Your task to perform on an android device: Open the calendar app, open the side menu, and click the "Day" option Image 0: 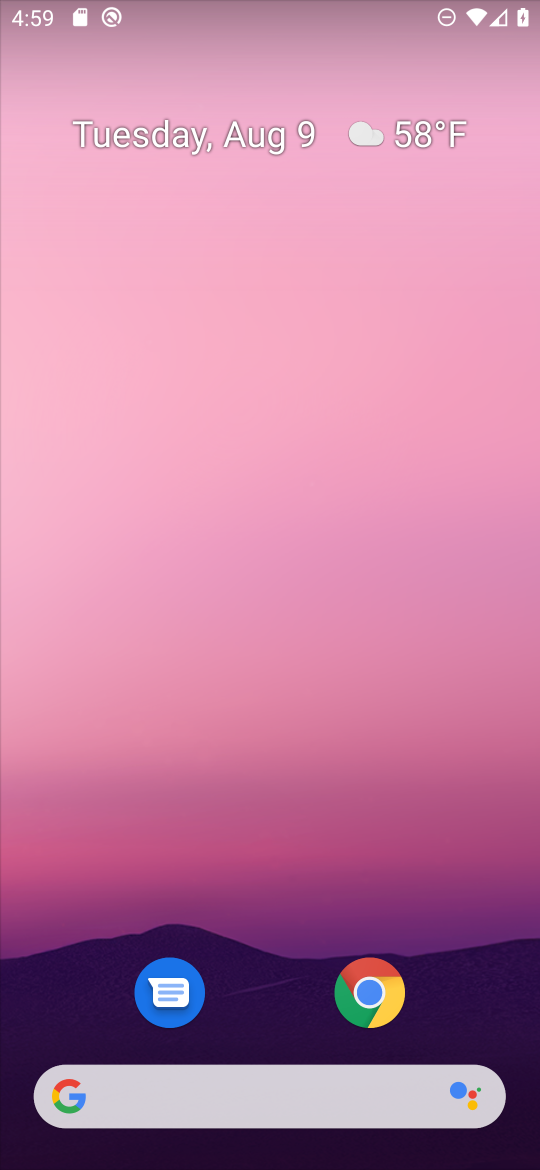
Step 0: drag from (131, 1096) to (390, 8)
Your task to perform on an android device: Open the calendar app, open the side menu, and click the "Day" option Image 1: 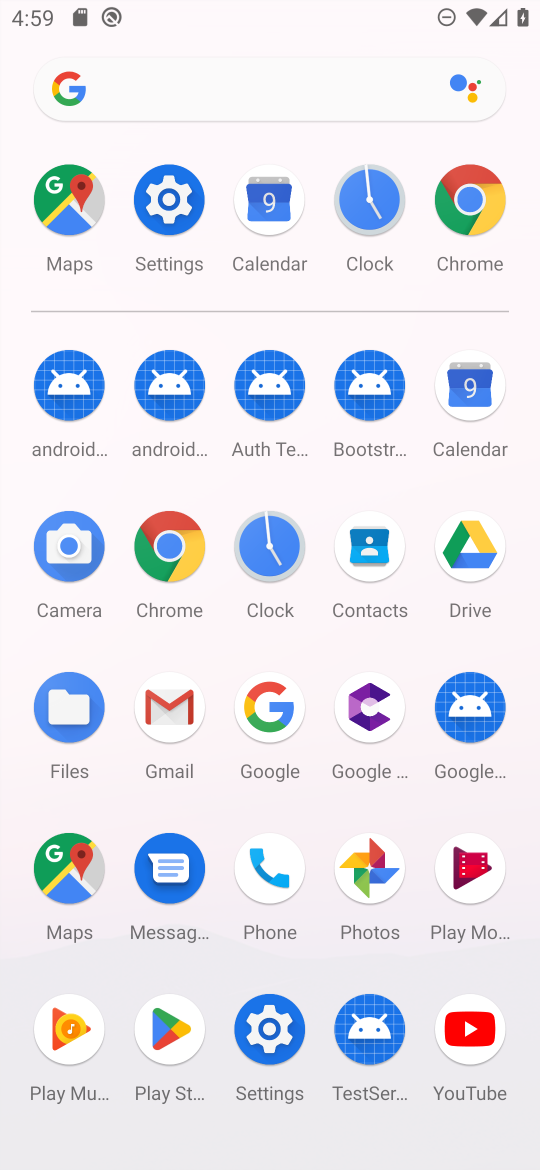
Step 1: click (452, 407)
Your task to perform on an android device: Open the calendar app, open the side menu, and click the "Day" option Image 2: 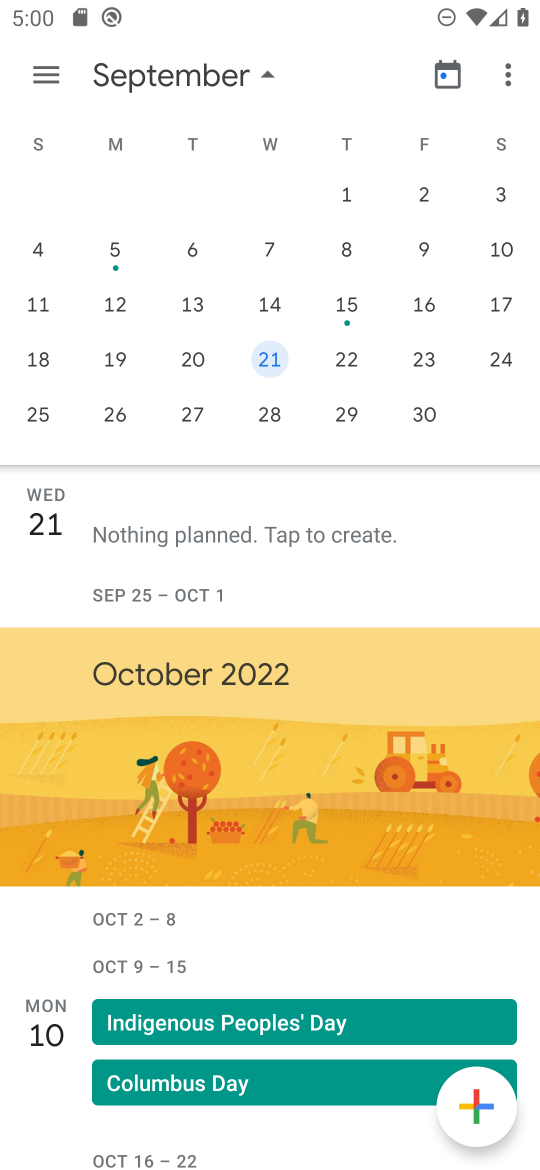
Step 2: click (27, 63)
Your task to perform on an android device: Open the calendar app, open the side menu, and click the "Day" option Image 3: 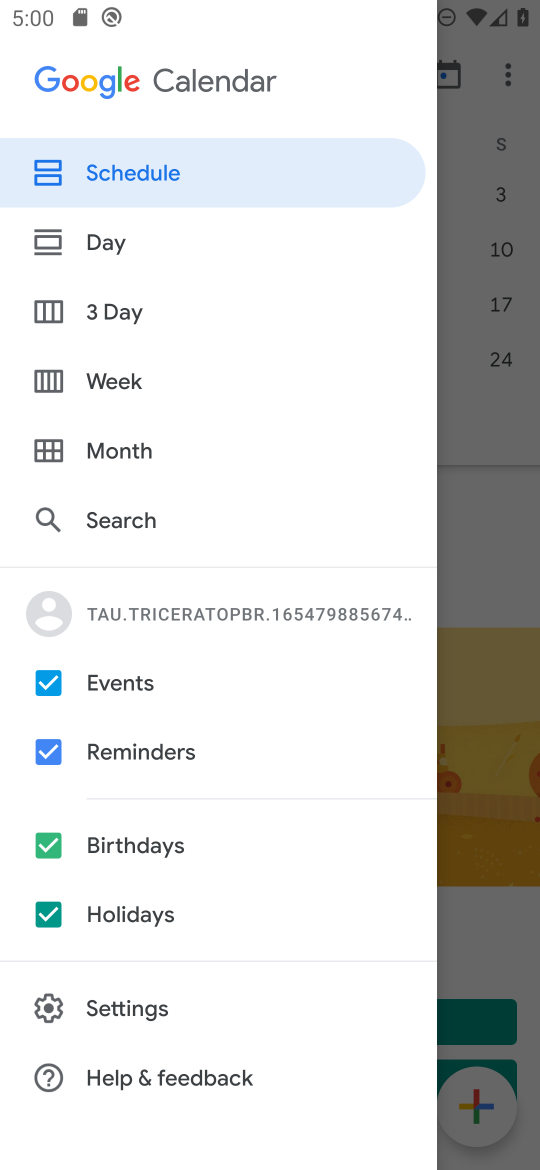
Step 3: click (258, 209)
Your task to perform on an android device: Open the calendar app, open the side menu, and click the "Day" option Image 4: 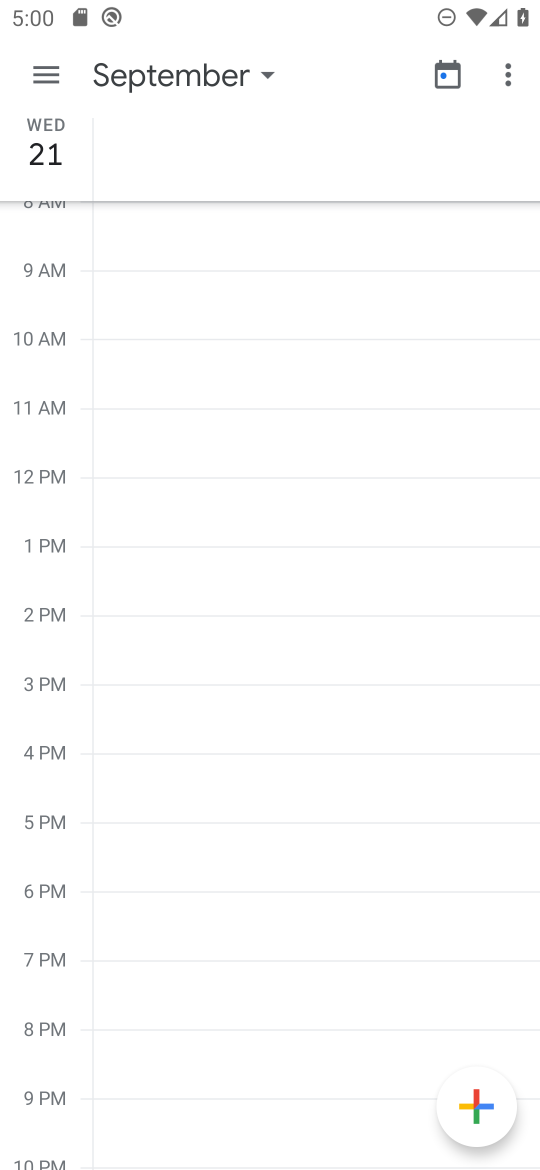
Step 4: press home button
Your task to perform on an android device: Open the calendar app, open the side menu, and click the "Day" option Image 5: 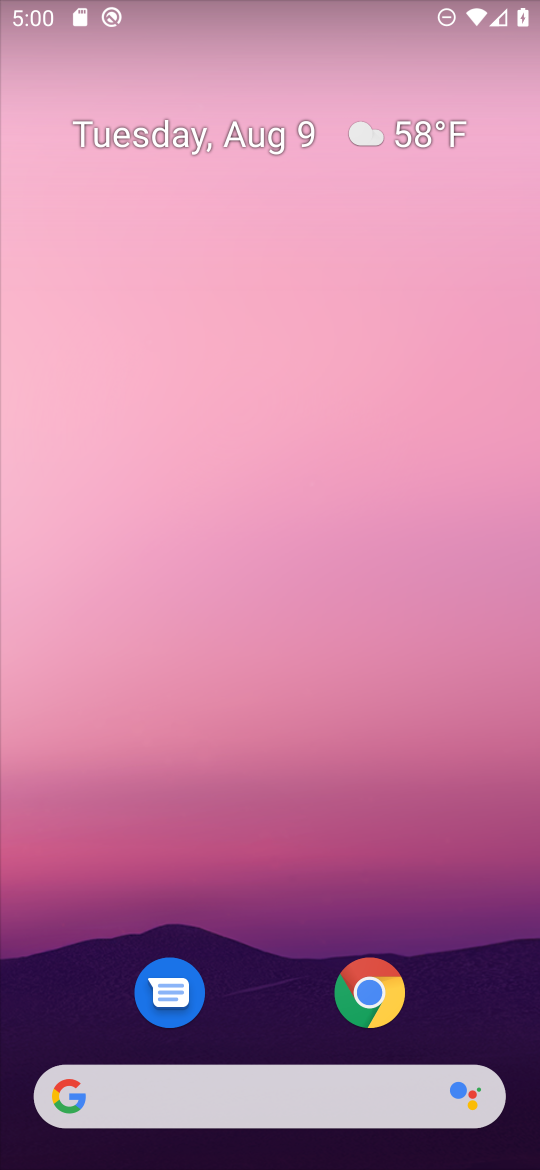
Step 5: drag from (417, 1087) to (510, 266)
Your task to perform on an android device: Open the calendar app, open the side menu, and click the "Day" option Image 6: 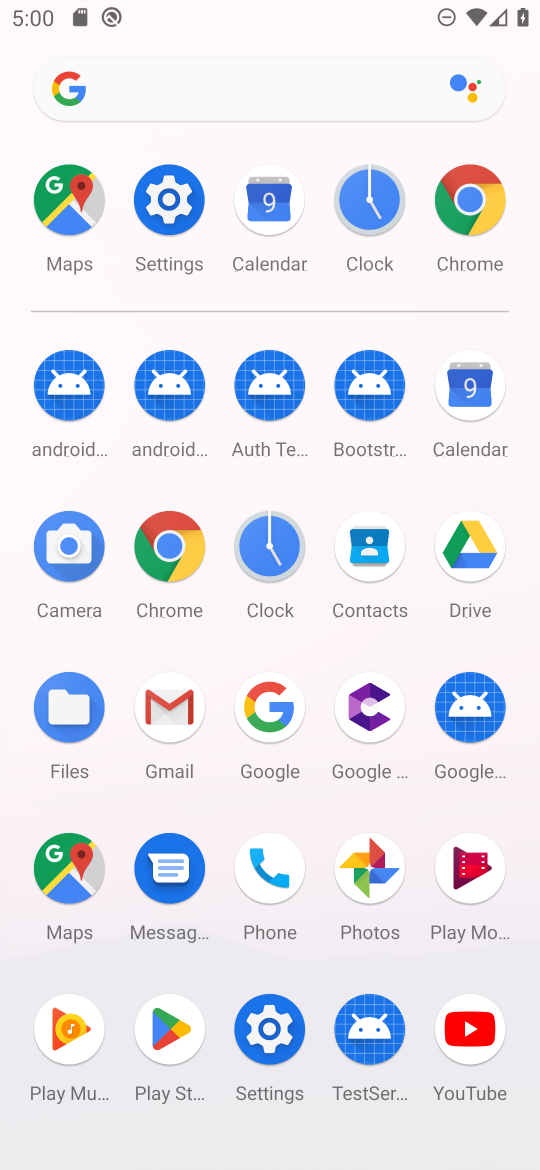
Step 6: click (466, 399)
Your task to perform on an android device: Open the calendar app, open the side menu, and click the "Day" option Image 7: 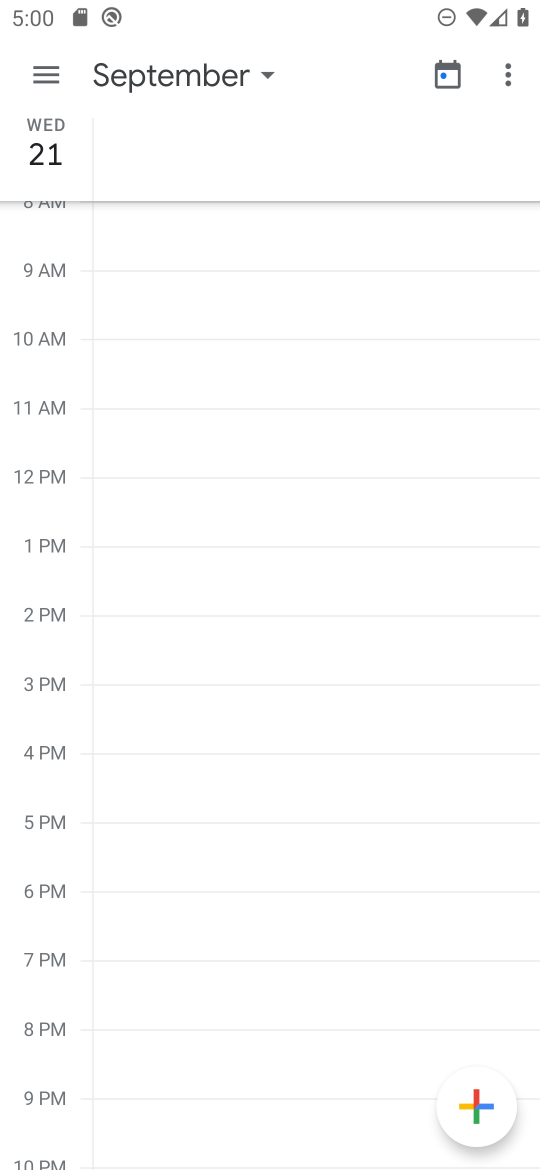
Step 7: click (43, 61)
Your task to perform on an android device: Open the calendar app, open the side menu, and click the "Day" option Image 8: 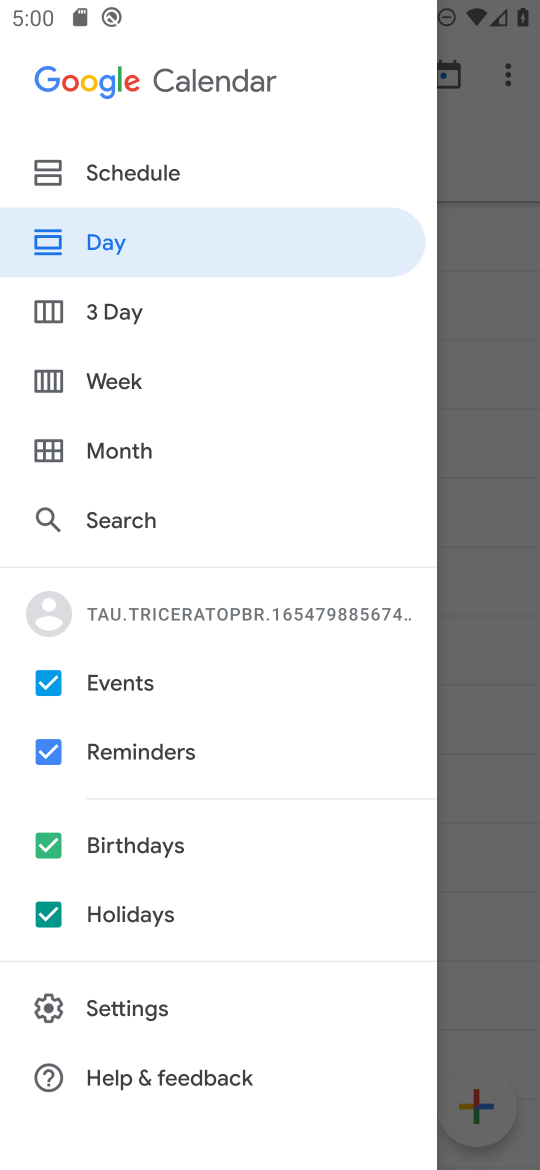
Step 8: click (127, 252)
Your task to perform on an android device: Open the calendar app, open the side menu, and click the "Day" option Image 9: 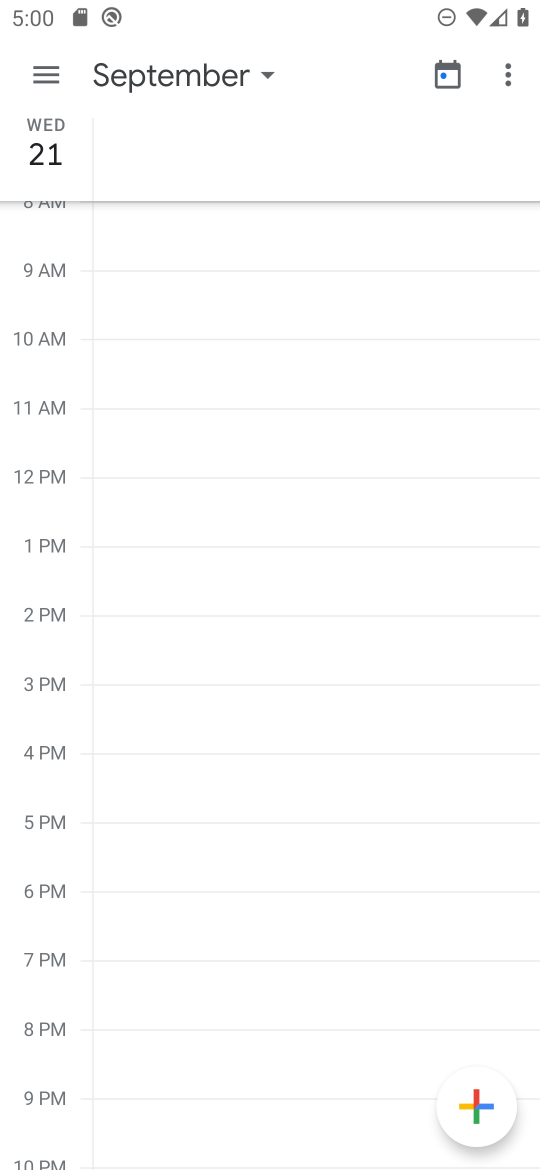
Step 9: task complete